Your task to perform on an android device: When is my next appointment? Image 0: 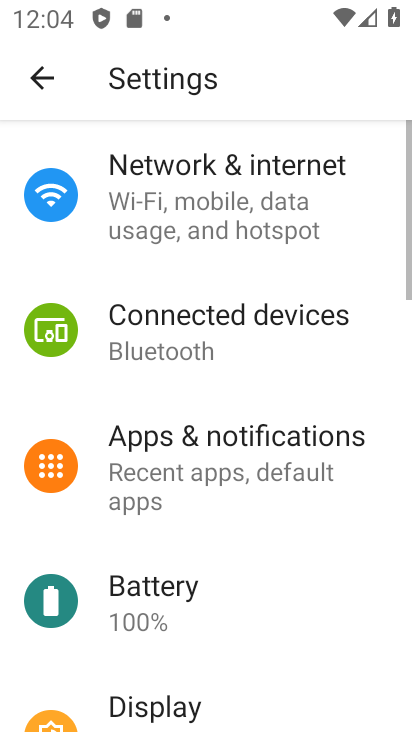
Step 0: press home button
Your task to perform on an android device: When is my next appointment? Image 1: 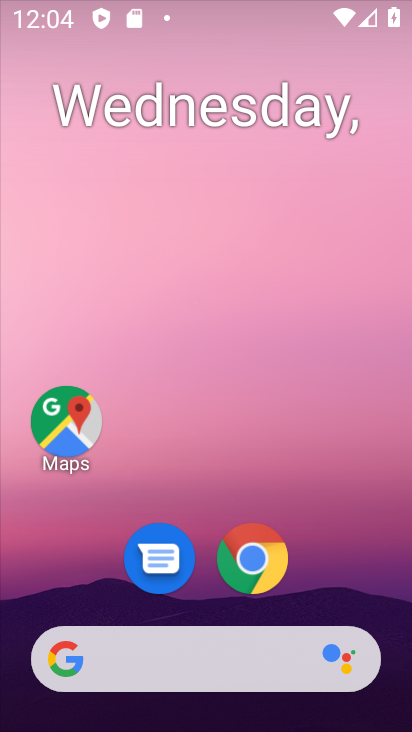
Step 1: drag from (223, 591) to (292, 151)
Your task to perform on an android device: When is my next appointment? Image 2: 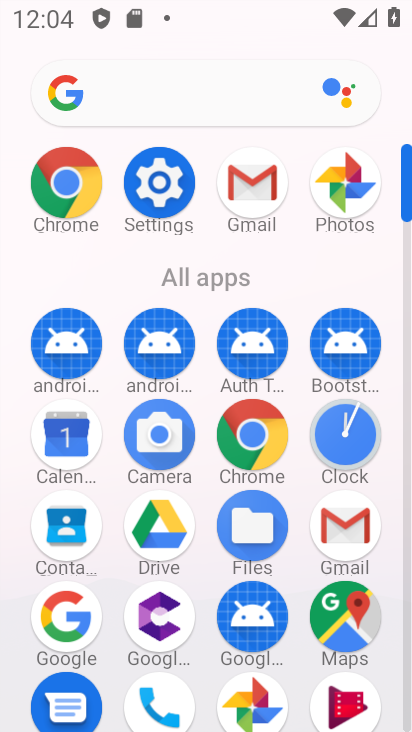
Step 2: click (83, 430)
Your task to perform on an android device: When is my next appointment? Image 3: 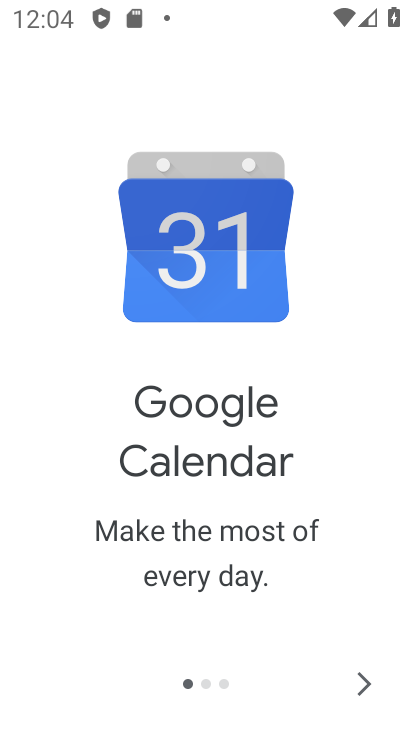
Step 3: click (359, 682)
Your task to perform on an android device: When is my next appointment? Image 4: 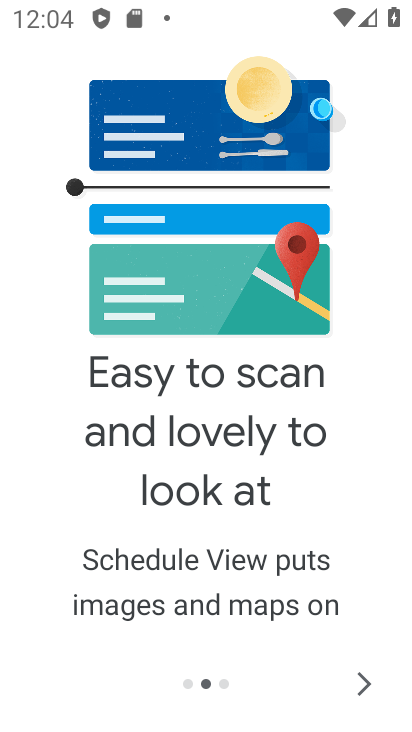
Step 4: click (361, 697)
Your task to perform on an android device: When is my next appointment? Image 5: 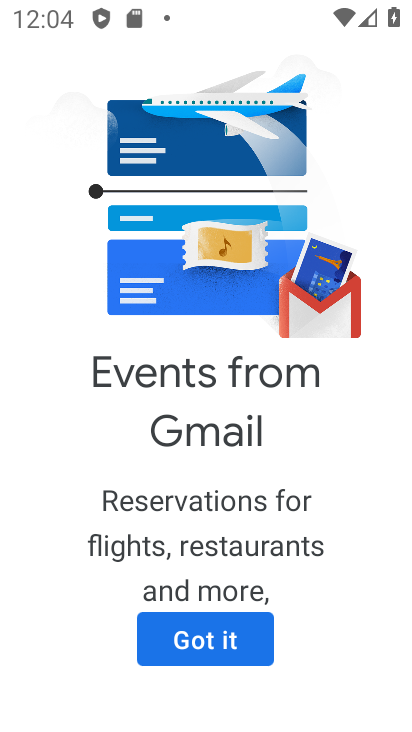
Step 5: click (204, 645)
Your task to perform on an android device: When is my next appointment? Image 6: 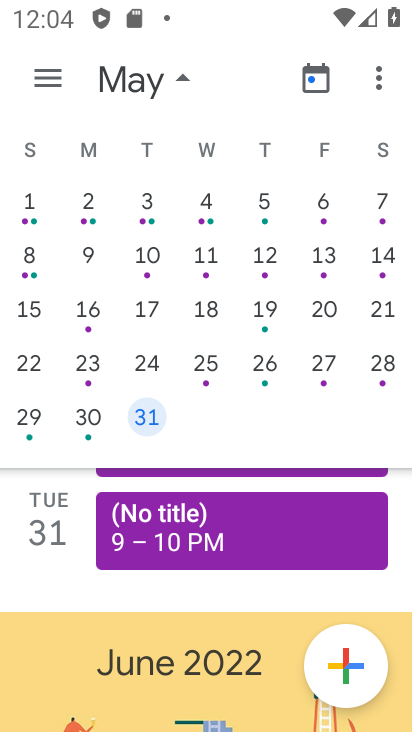
Step 6: click (53, 85)
Your task to perform on an android device: When is my next appointment? Image 7: 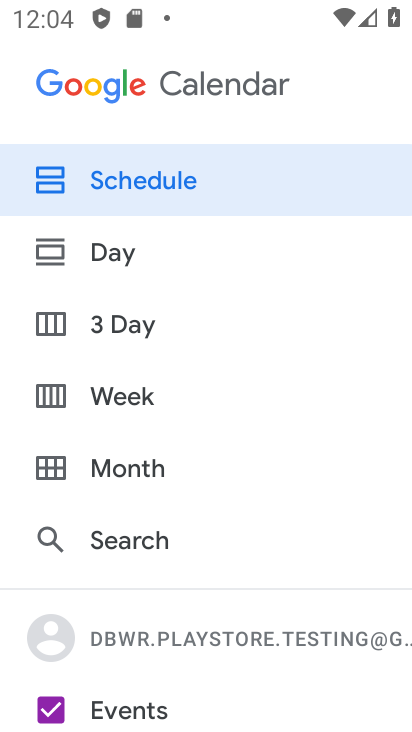
Step 7: drag from (176, 527) to (206, 262)
Your task to perform on an android device: When is my next appointment? Image 8: 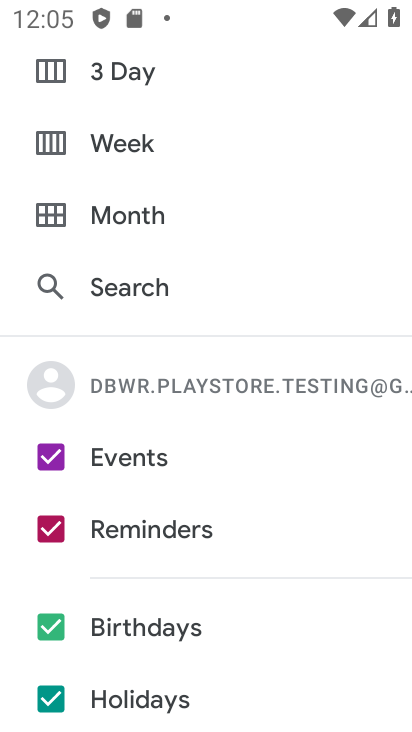
Step 8: click (57, 632)
Your task to perform on an android device: When is my next appointment? Image 9: 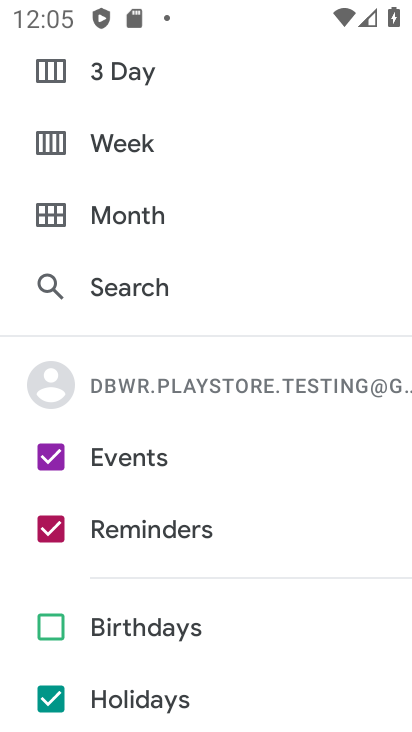
Step 9: task complete